Your task to perform on an android device: Go to CNN.com Image 0: 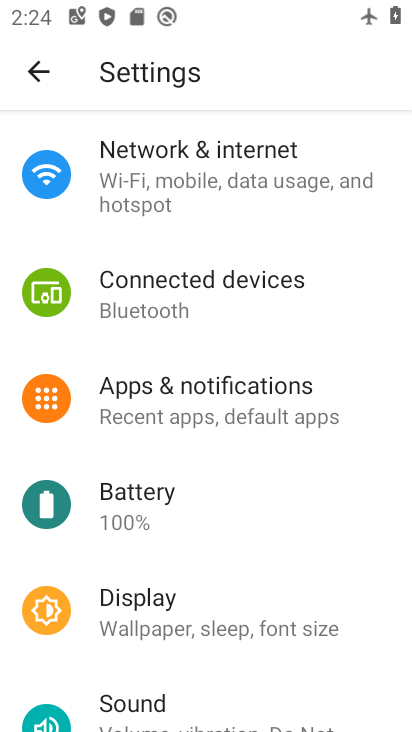
Step 0: press home button
Your task to perform on an android device: Go to CNN.com Image 1: 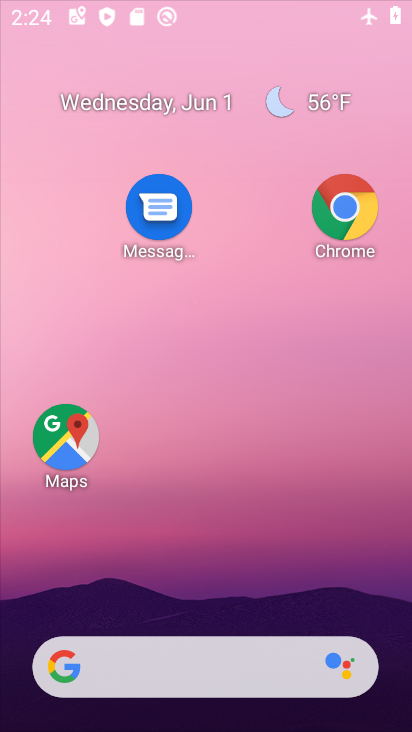
Step 1: drag from (104, 571) to (151, 43)
Your task to perform on an android device: Go to CNN.com Image 2: 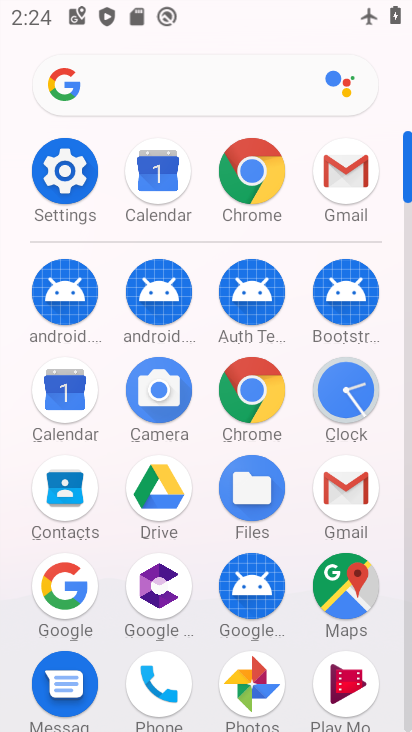
Step 2: click (157, 105)
Your task to perform on an android device: Go to CNN.com Image 3: 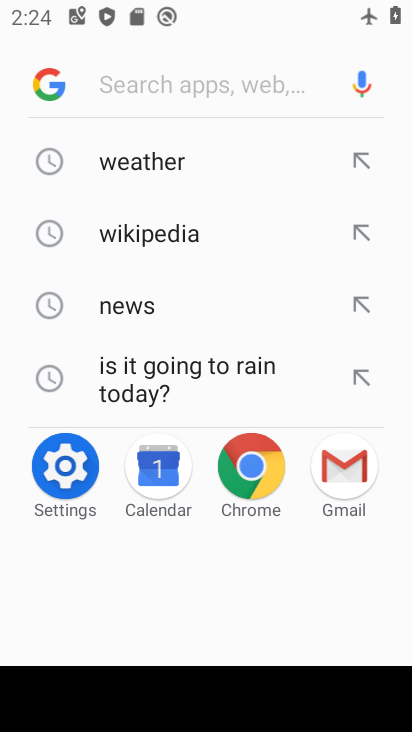
Step 3: click (191, 91)
Your task to perform on an android device: Go to CNN.com Image 4: 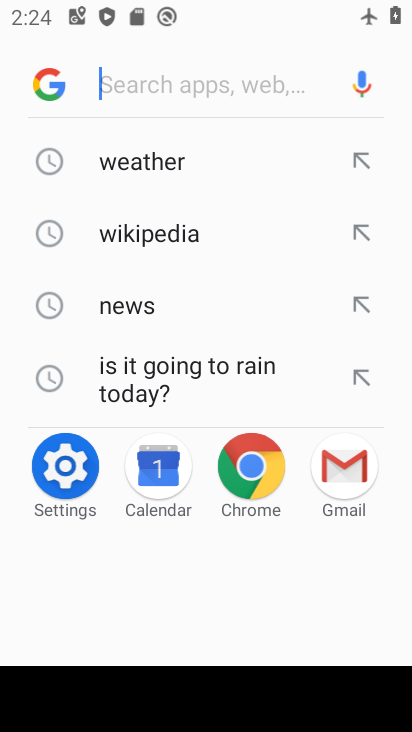
Step 4: type "CNN.com"
Your task to perform on an android device: Go to CNN.com Image 5: 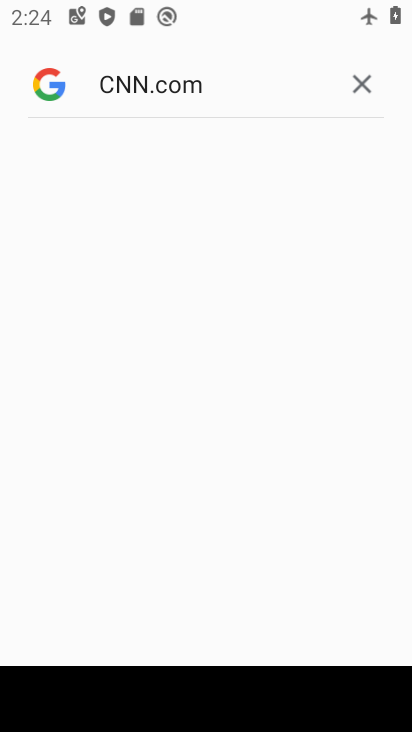
Step 5: task complete